Your task to perform on an android device: Search for logitech g502 on ebay, select the first entry, and add it to the cart. Image 0: 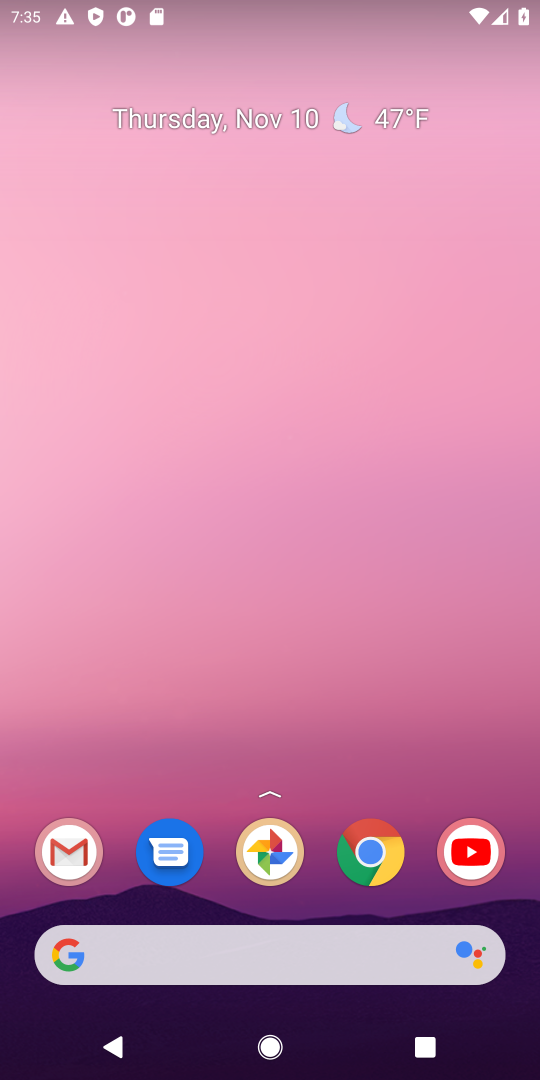
Step 0: click (365, 847)
Your task to perform on an android device: Search for logitech g502 on ebay, select the first entry, and add it to the cart. Image 1: 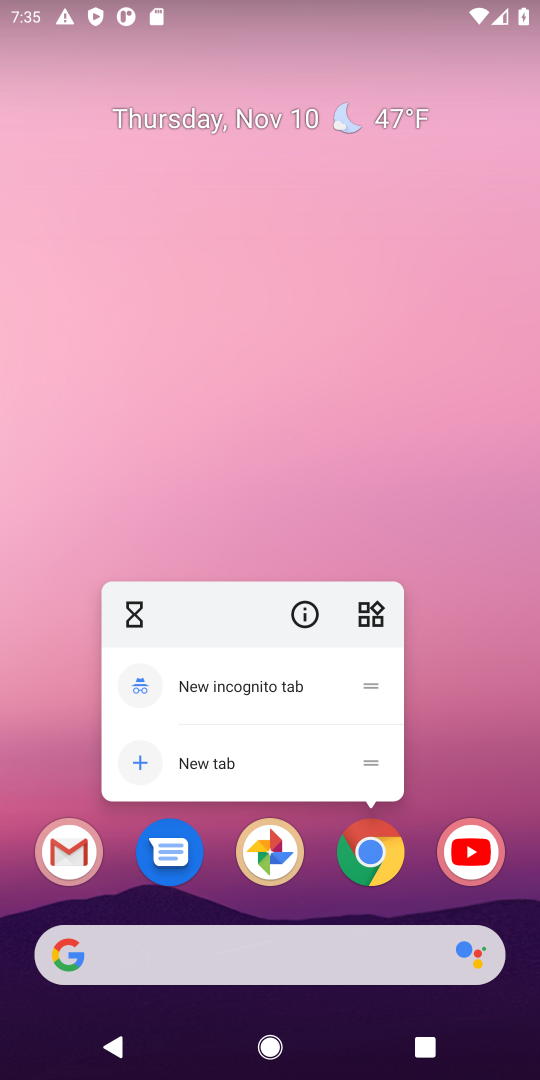
Step 1: click (365, 848)
Your task to perform on an android device: Search for logitech g502 on ebay, select the first entry, and add it to the cart. Image 2: 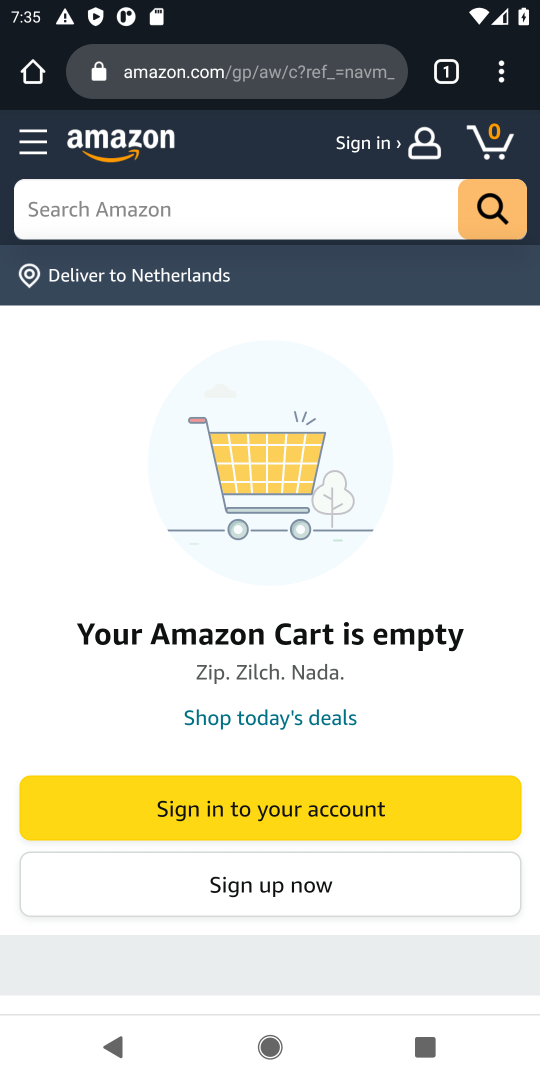
Step 2: click (282, 72)
Your task to perform on an android device: Search for logitech g502 on ebay, select the first entry, and add it to the cart. Image 3: 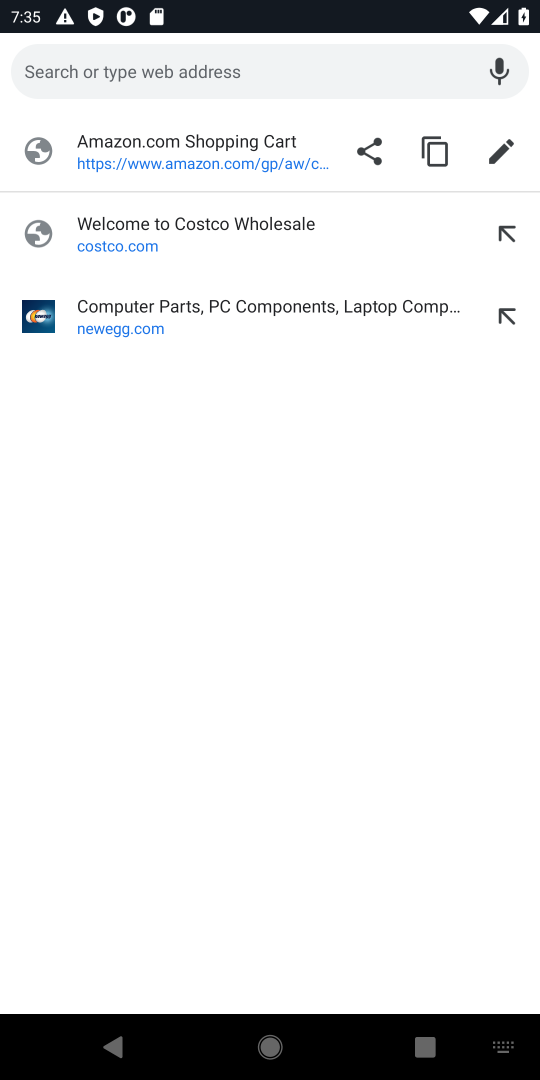
Step 3: type "ebay"
Your task to perform on an android device: Search for logitech g502 on ebay, select the first entry, and add it to the cart. Image 4: 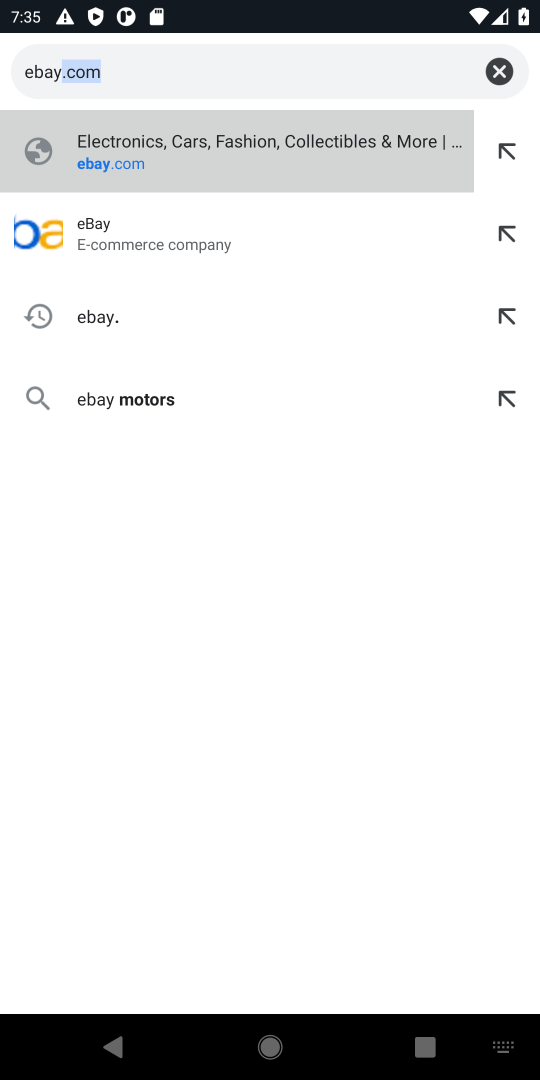
Step 4: press enter
Your task to perform on an android device: Search for logitech g502 on ebay, select the first entry, and add it to the cart. Image 5: 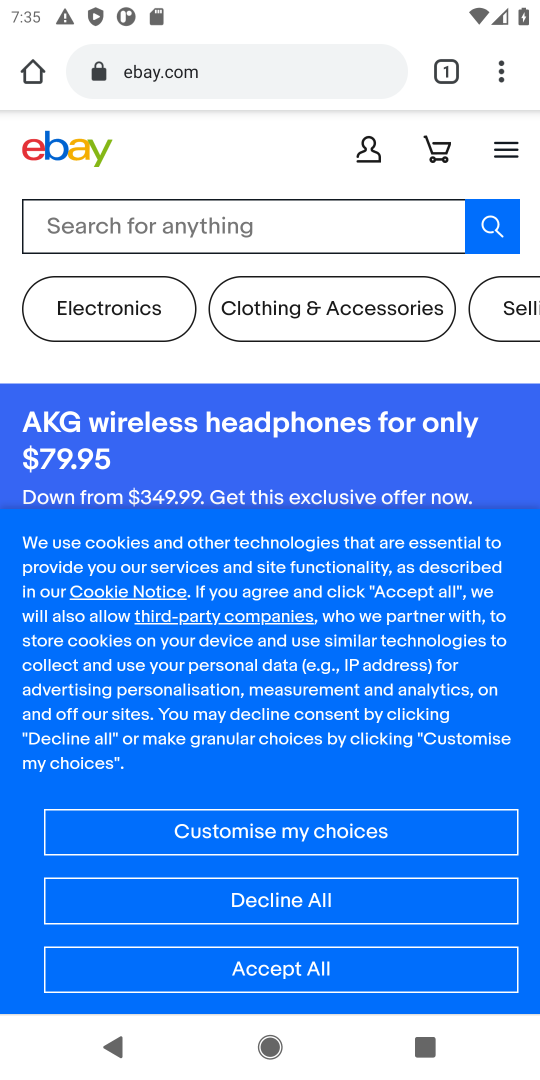
Step 5: click (224, 223)
Your task to perform on an android device: Search for logitech g502 on ebay, select the first entry, and add it to the cart. Image 6: 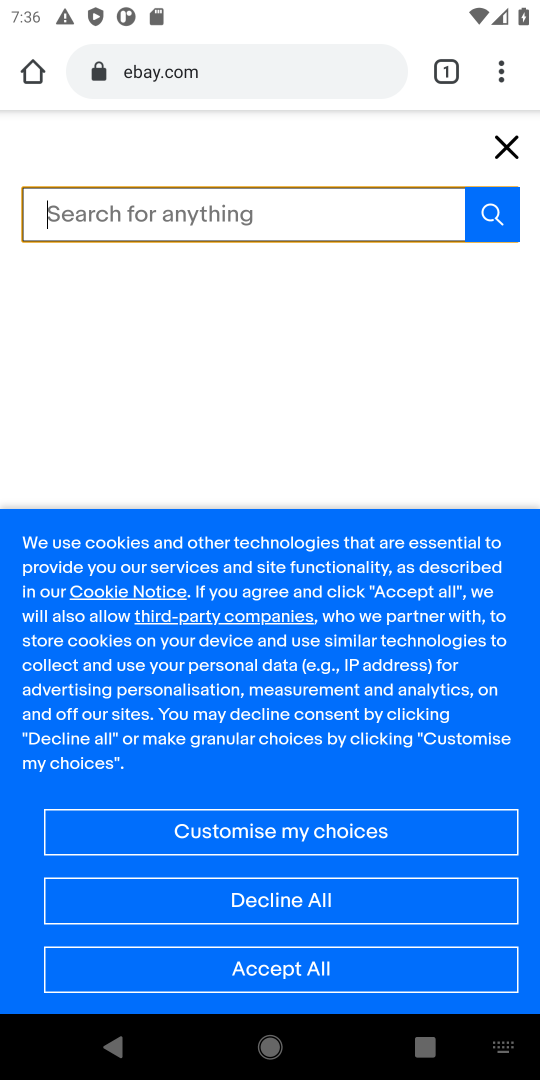
Step 6: type "logitech g502"
Your task to perform on an android device: Search for logitech g502 on ebay, select the first entry, and add it to the cart. Image 7: 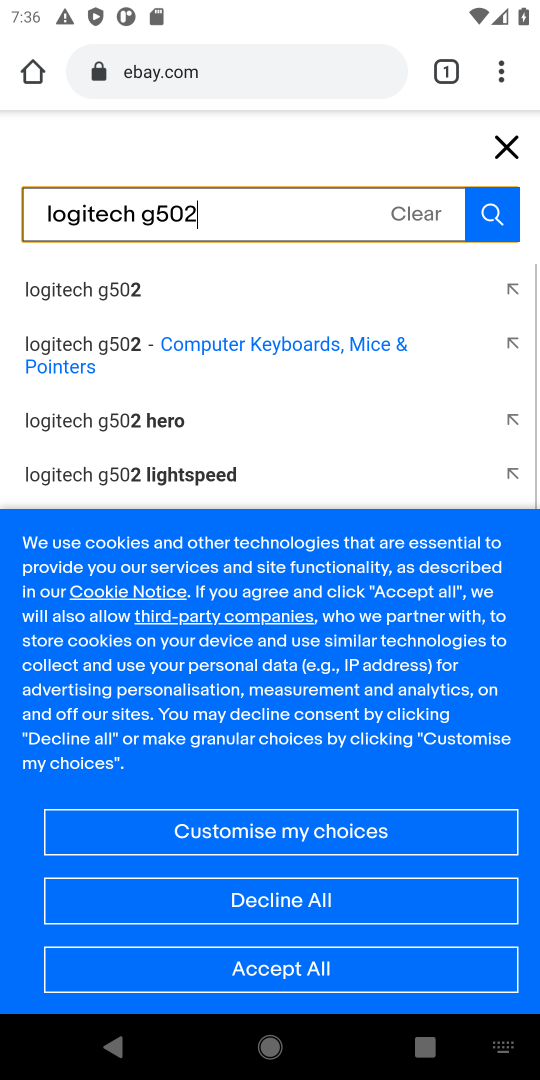
Step 7: press enter
Your task to perform on an android device: Search for logitech g502 on ebay, select the first entry, and add it to the cart. Image 8: 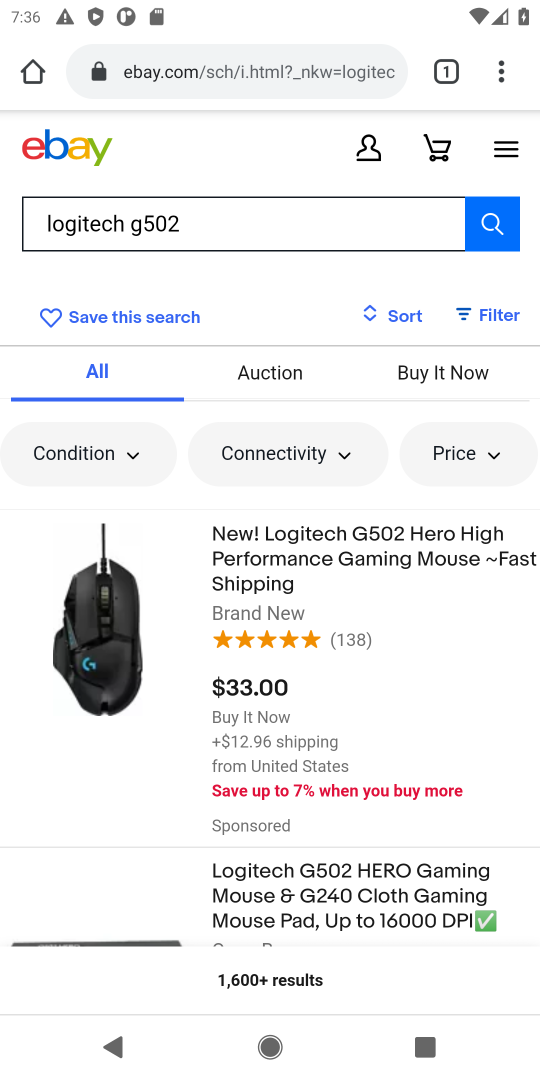
Step 8: click (288, 549)
Your task to perform on an android device: Search for logitech g502 on ebay, select the first entry, and add it to the cart. Image 9: 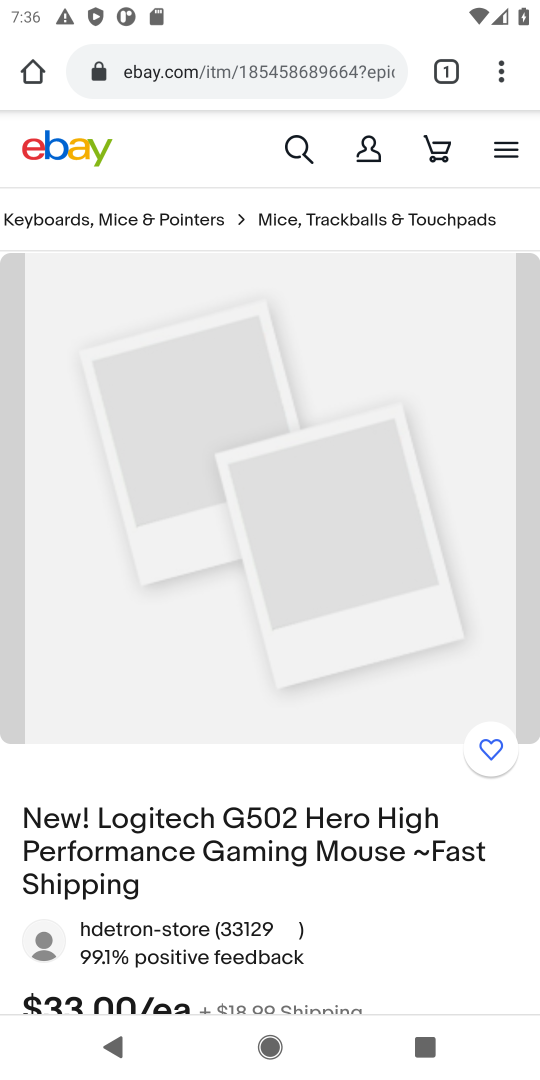
Step 9: drag from (347, 876) to (388, 284)
Your task to perform on an android device: Search for logitech g502 on ebay, select the first entry, and add it to the cart. Image 10: 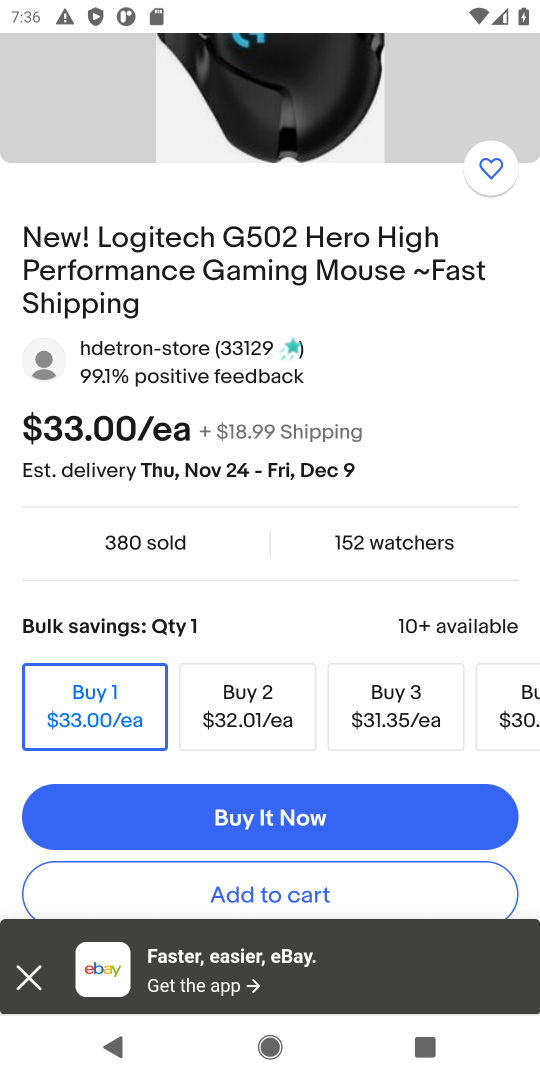
Step 10: drag from (236, 754) to (339, 502)
Your task to perform on an android device: Search for logitech g502 on ebay, select the first entry, and add it to the cart. Image 11: 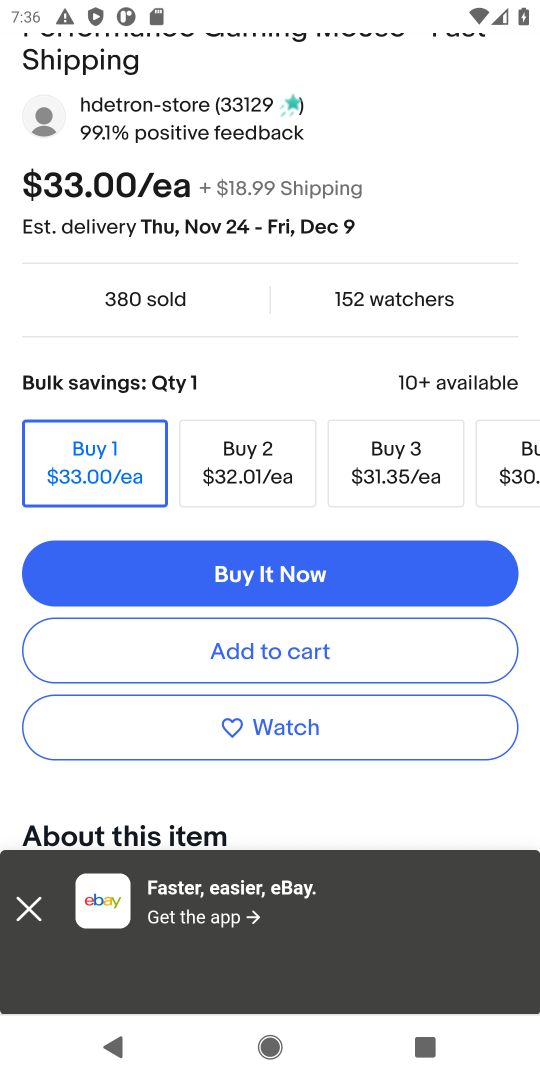
Step 11: click (299, 647)
Your task to perform on an android device: Search for logitech g502 on ebay, select the first entry, and add it to the cart. Image 12: 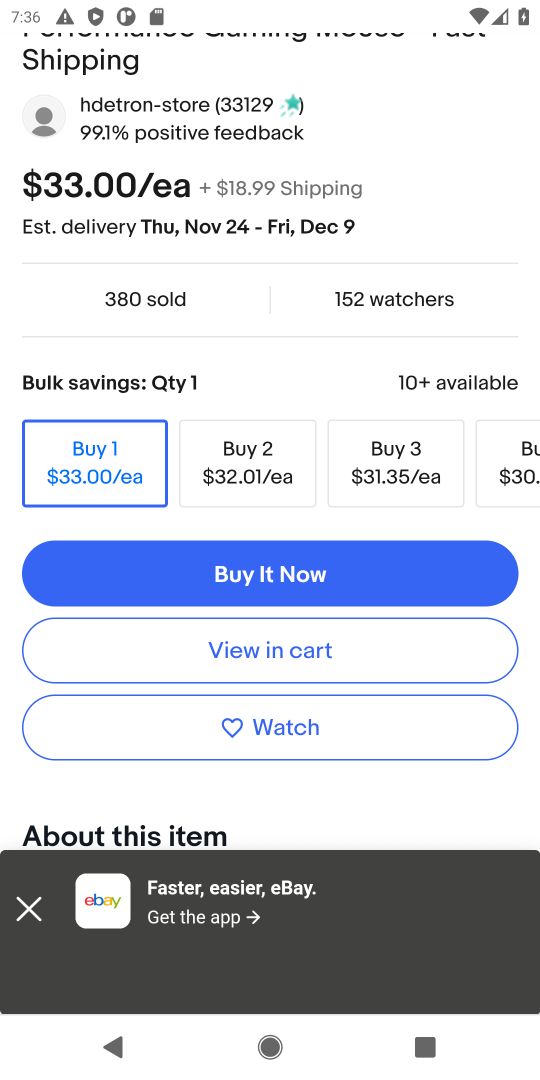
Step 12: click (258, 657)
Your task to perform on an android device: Search for logitech g502 on ebay, select the first entry, and add it to the cart. Image 13: 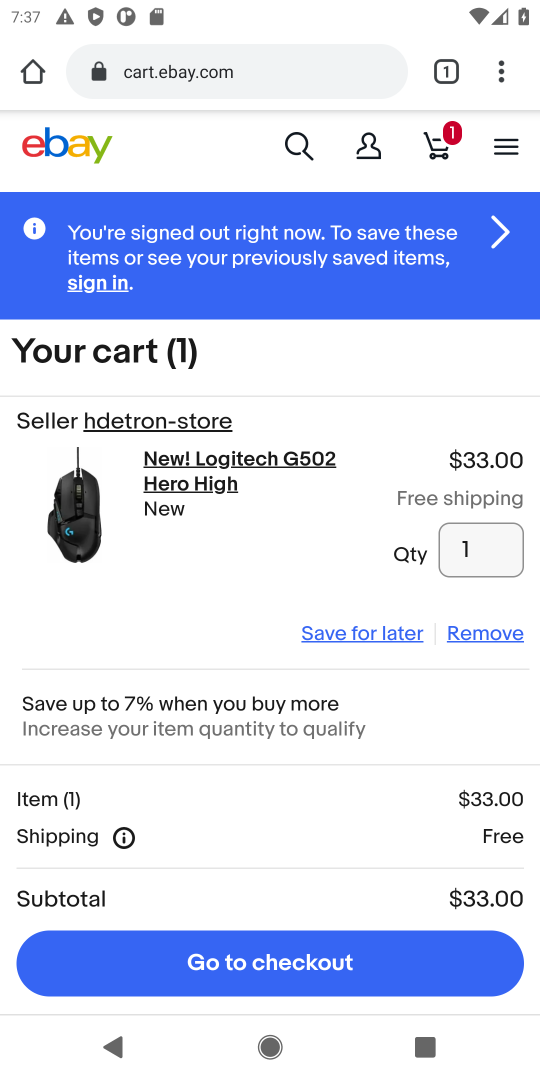
Step 13: task complete